Your task to perform on an android device: turn on notifications settings in the gmail app Image 0: 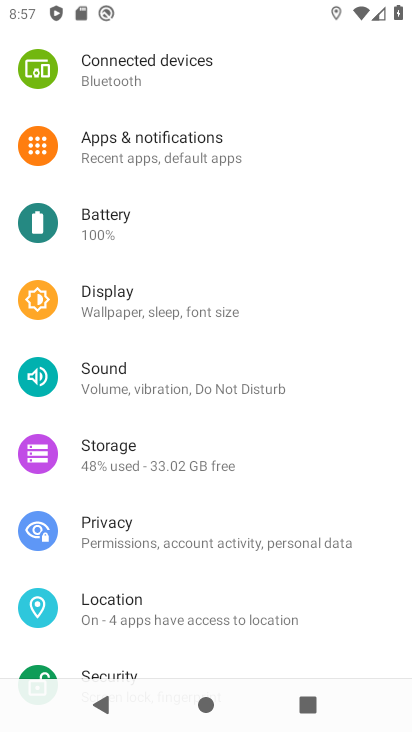
Step 0: press home button
Your task to perform on an android device: turn on notifications settings in the gmail app Image 1: 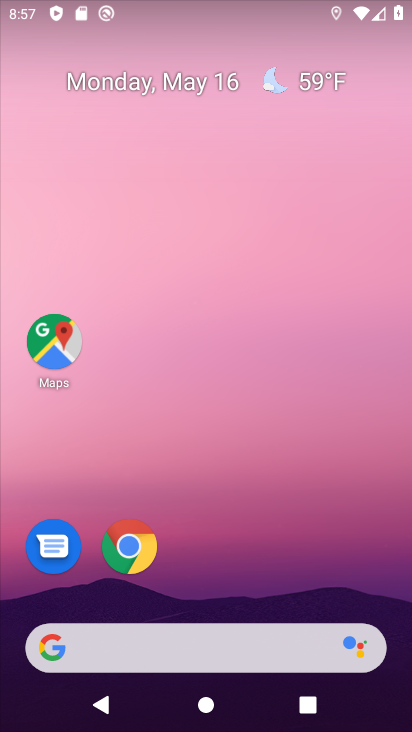
Step 1: drag from (311, 526) to (271, 108)
Your task to perform on an android device: turn on notifications settings in the gmail app Image 2: 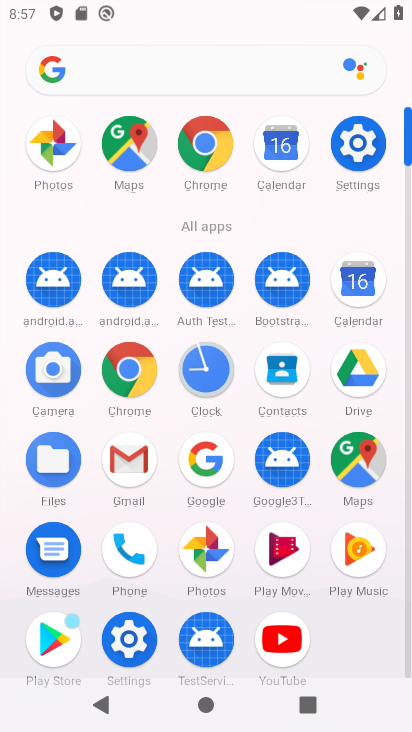
Step 2: click (119, 457)
Your task to perform on an android device: turn on notifications settings in the gmail app Image 3: 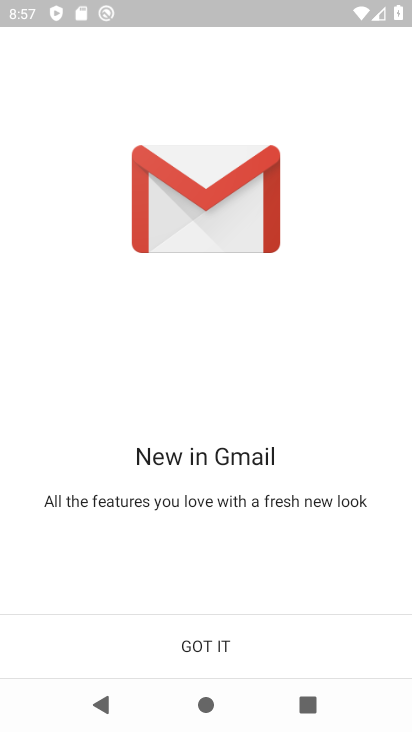
Step 3: click (201, 637)
Your task to perform on an android device: turn on notifications settings in the gmail app Image 4: 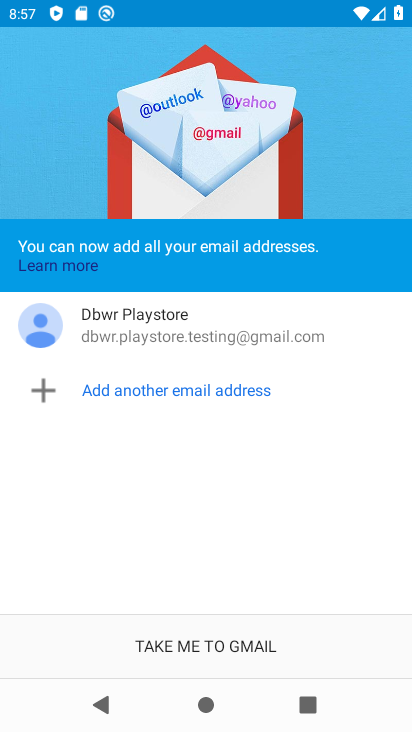
Step 4: click (196, 642)
Your task to perform on an android device: turn on notifications settings in the gmail app Image 5: 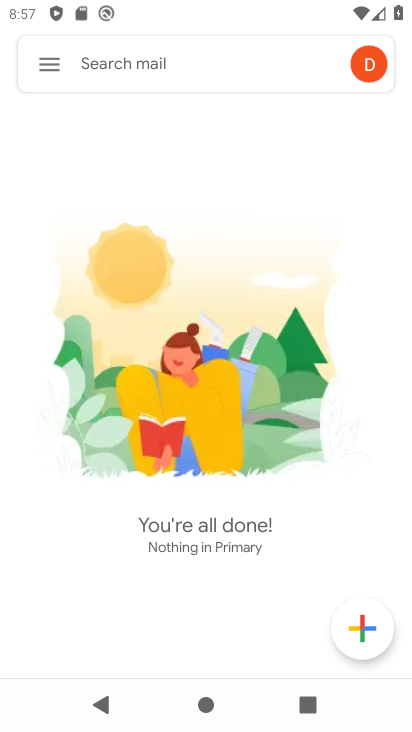
Step 5: click (55, 64)
Your task to perform on an android device: turn on notifications settings in the gmail app Image 6: 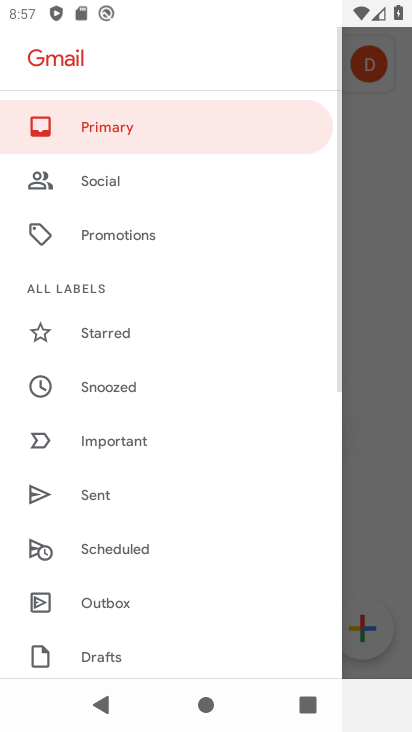
Step 6: drag from (123, 592) to (174, 126)
Your task to perform on an android device: turn on notifications settings in the gmail app Image 7: 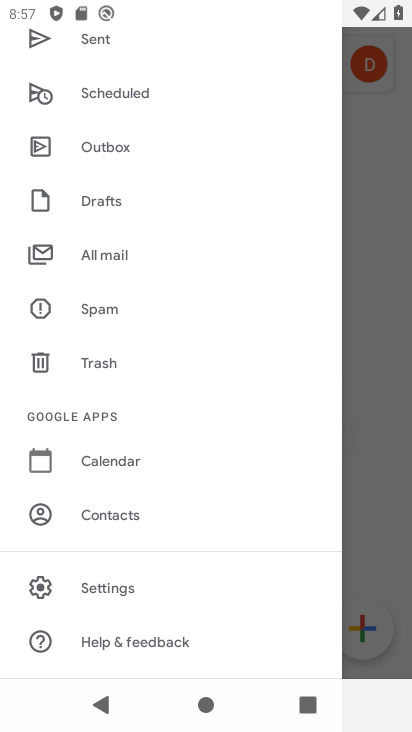
Step 7: click (106, 590)
Your task to perform on an android device: turn on notifications settings in the gmail app Image 8: 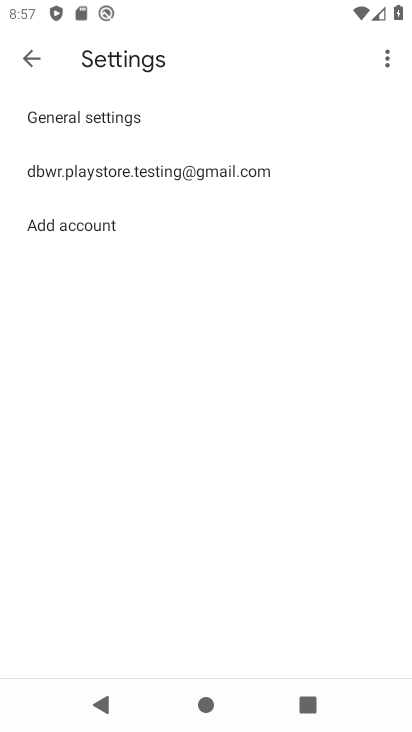
Step 8: click (202, 176)
Your task to perform on an android device: turn on notifications settings in the gmail app Image 9: 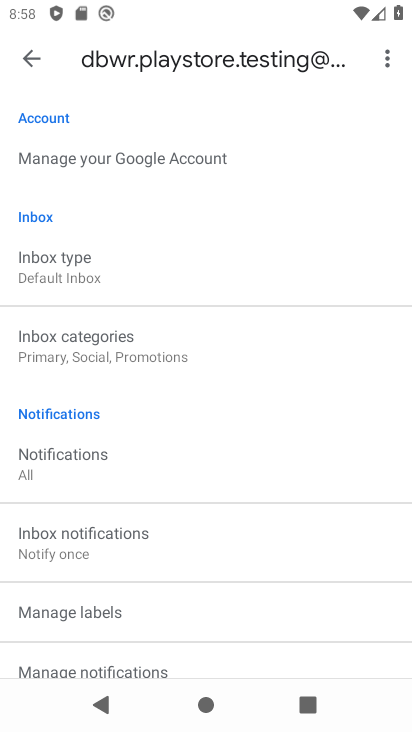
Step 9: click (83, 454)
Your task to perform on an android device: turn on notifications settings in the gmail app Image 10: 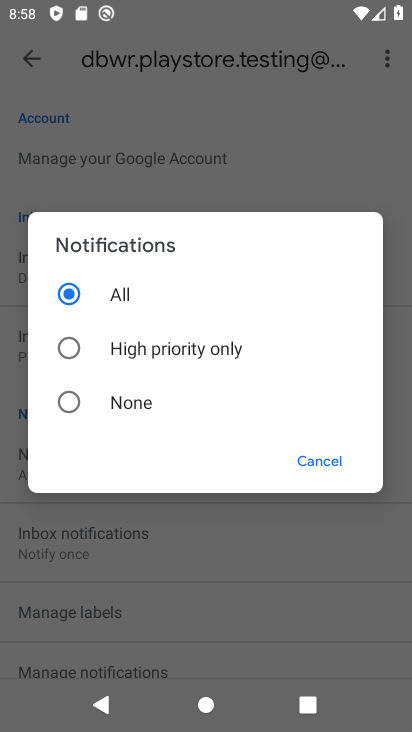
Step 10: task complete